Your task to perform on an android device: Add "razer blade" to the cart on ebay Image 0: 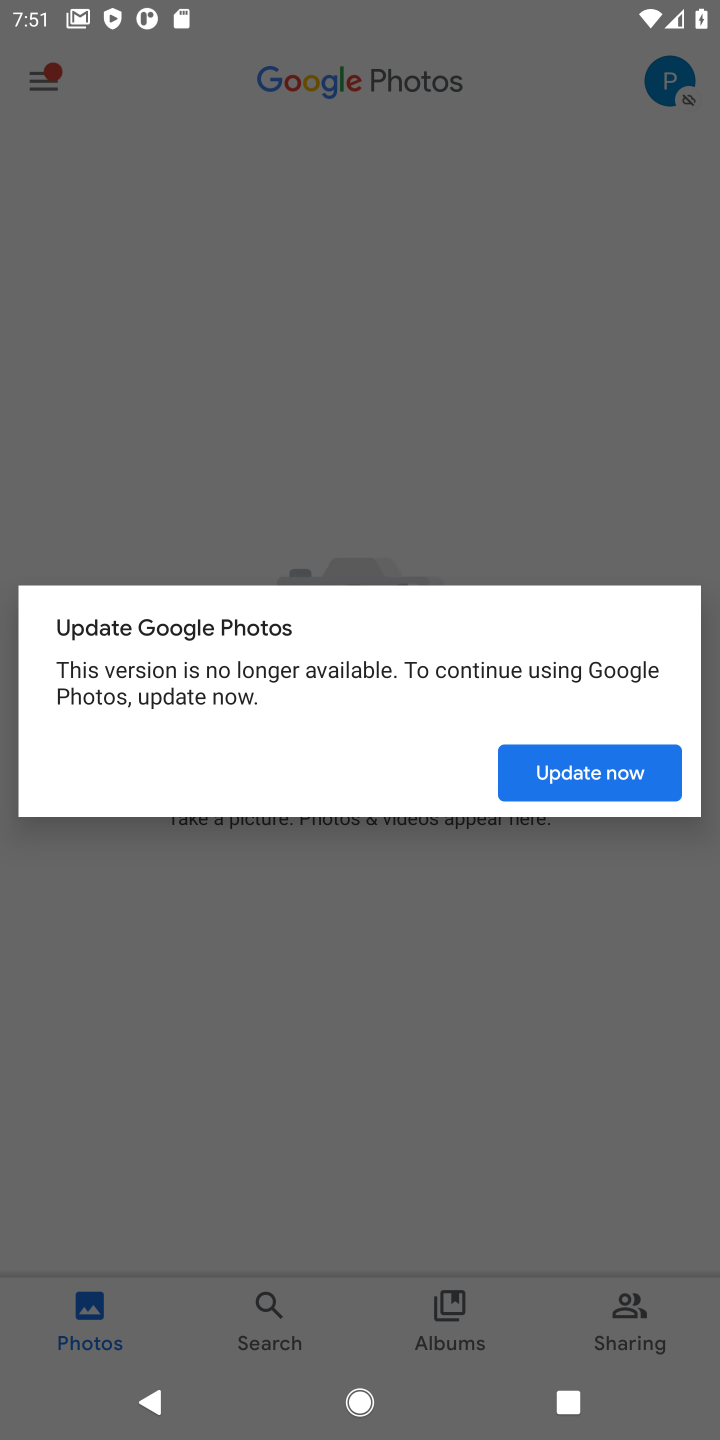
Step 0: press home button
Your task to perform on an android device: Add "razer blade" to the cart on ebay Image 1: 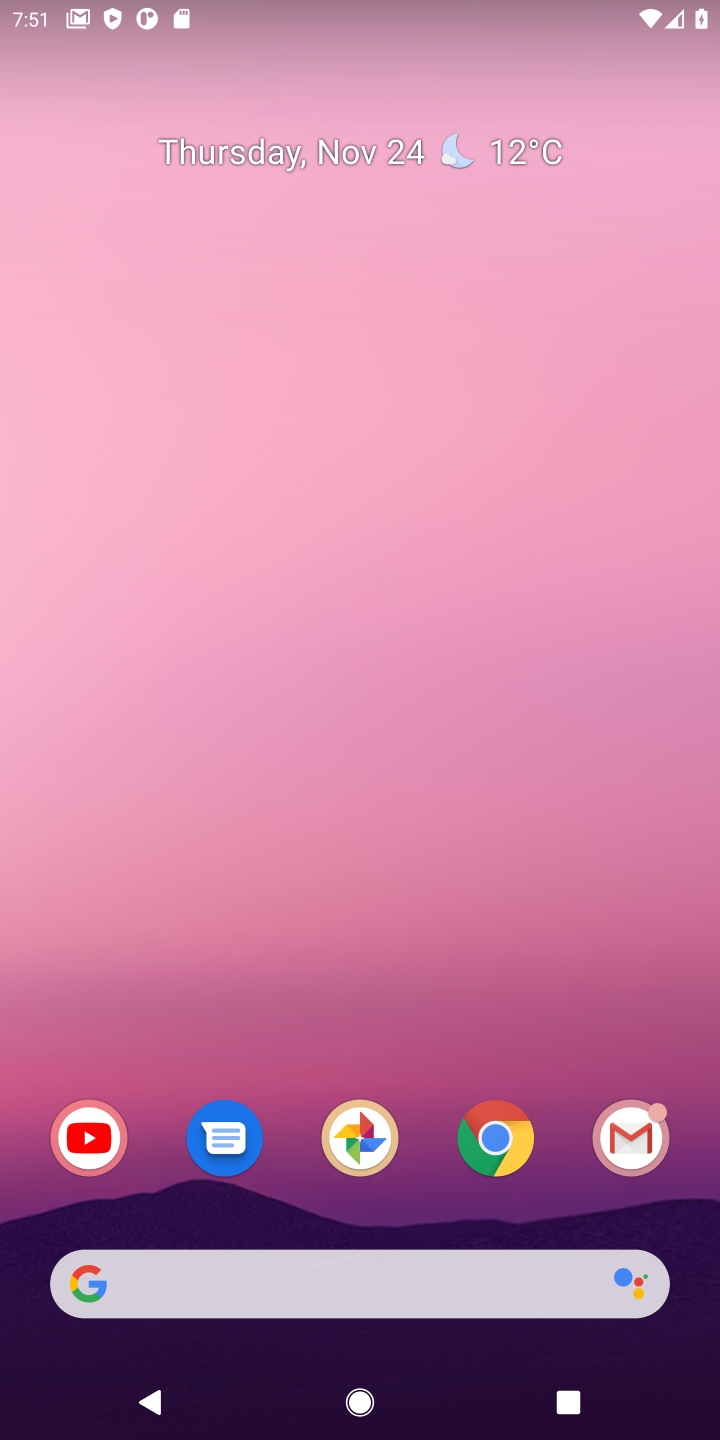
Step 1: click (481, 1119)
Your task to perform on an android device: Add "razer blade" to the cart on ebay Image 2: 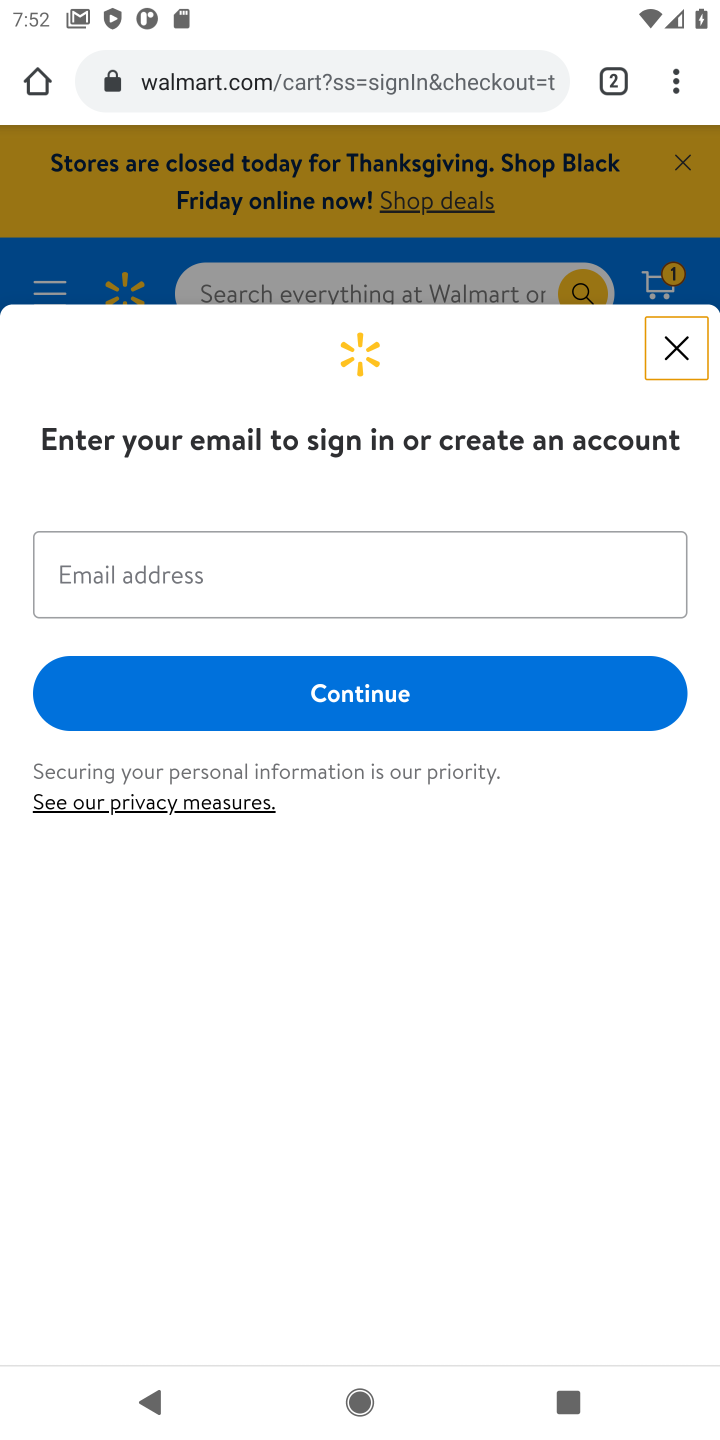
Step 2: click (609, 80)
Your task to perform on an android device: Add "razer blade" to the cart on ebay Image 3: 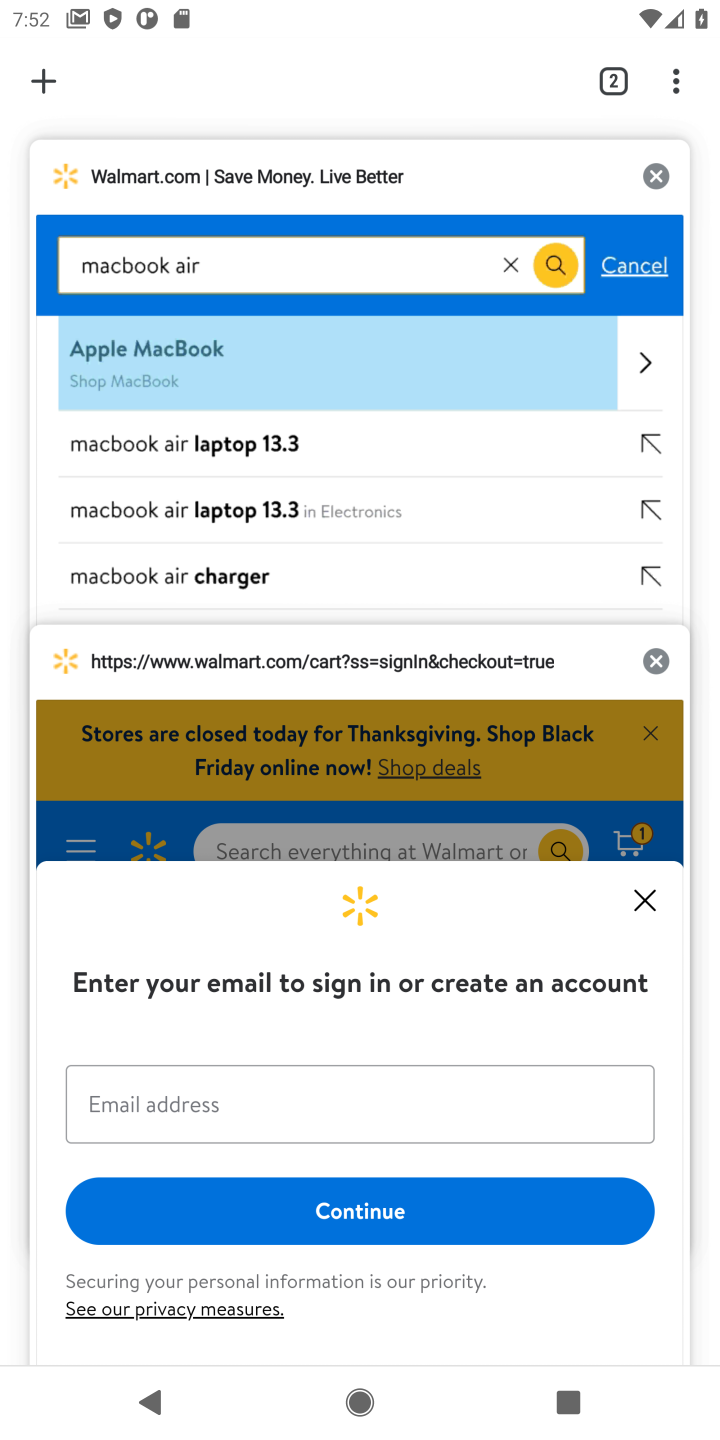
Step 3: click (32, 80)
Your task to perform on an android device: Add "razer blade" to the cart on ebay Image 4: 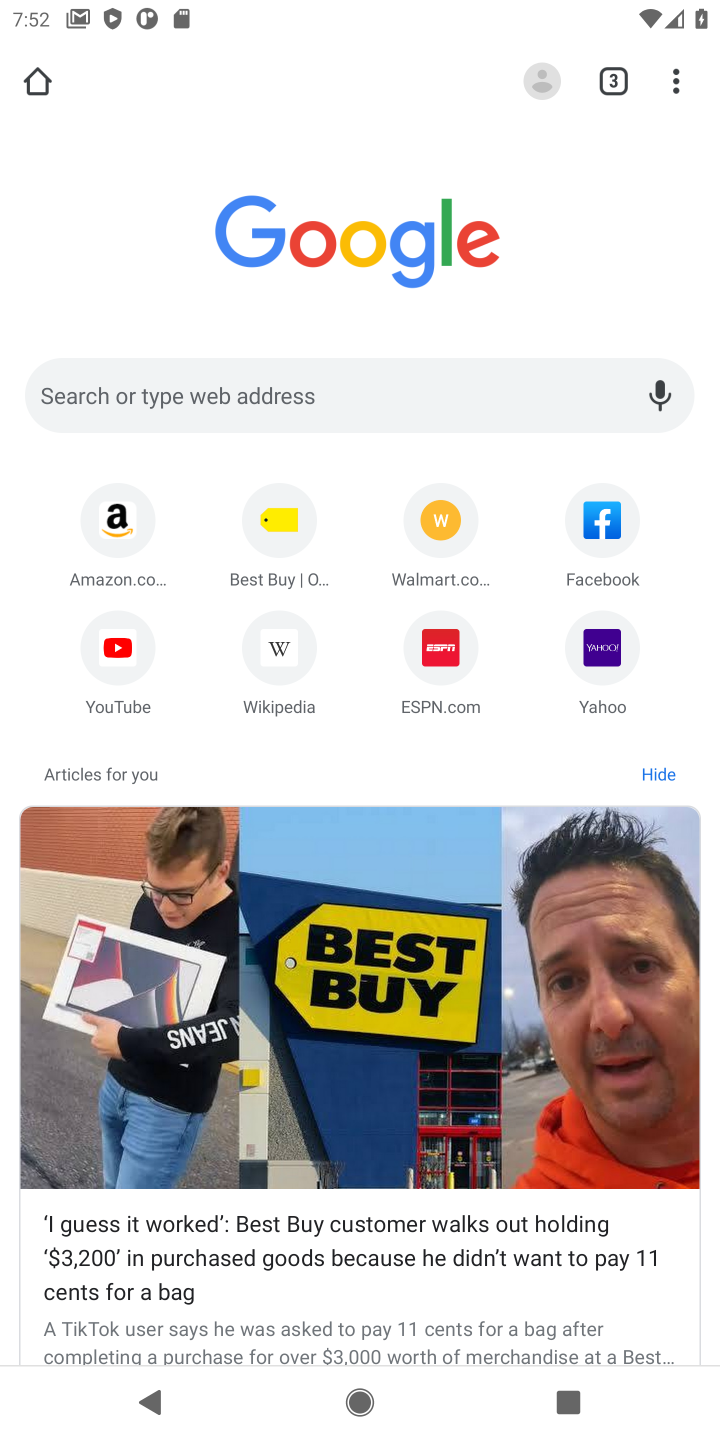
Step 4: click (199, 376)
Your task to perform on an android device: Add "razer blade" to the cart on ebay Image 5: 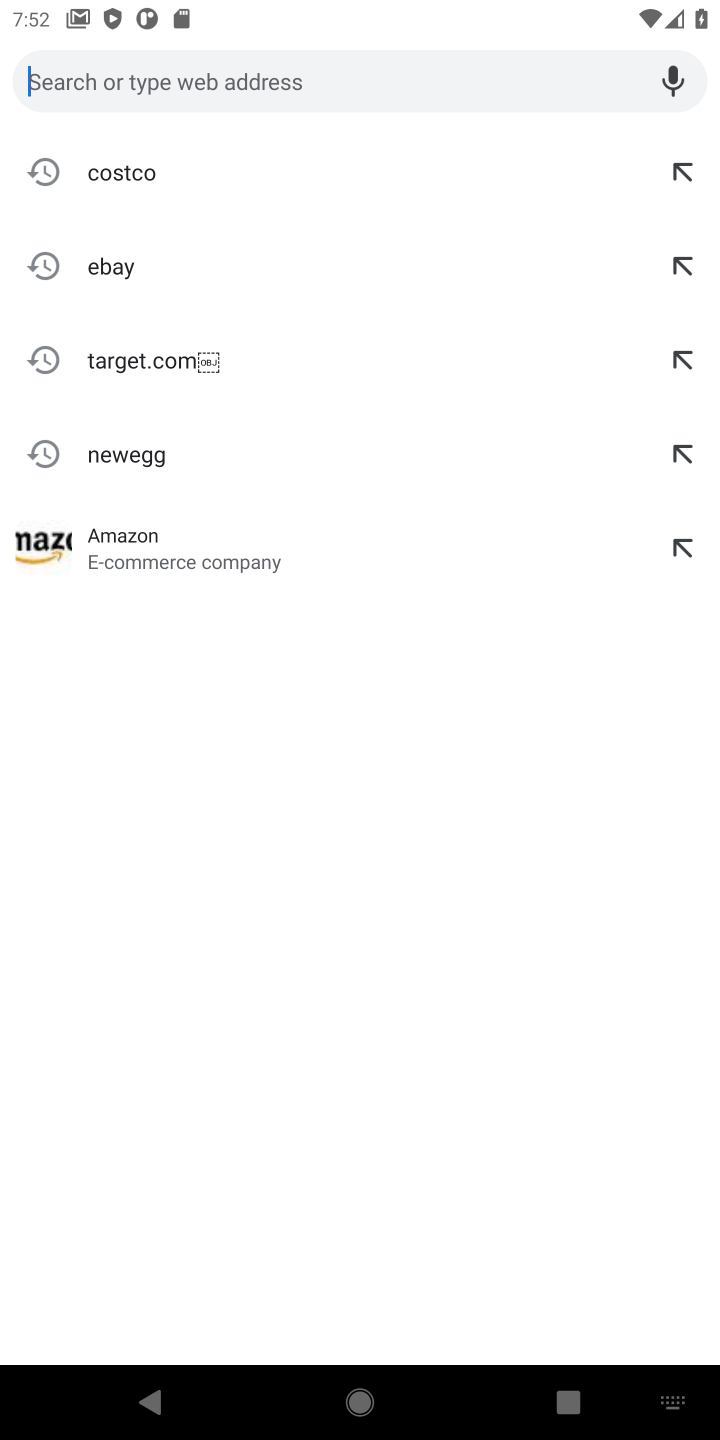
Step 5: click (103, 255)
Your task to perform on an android device: Add "razer blade" to the cart on ebay Image 6: 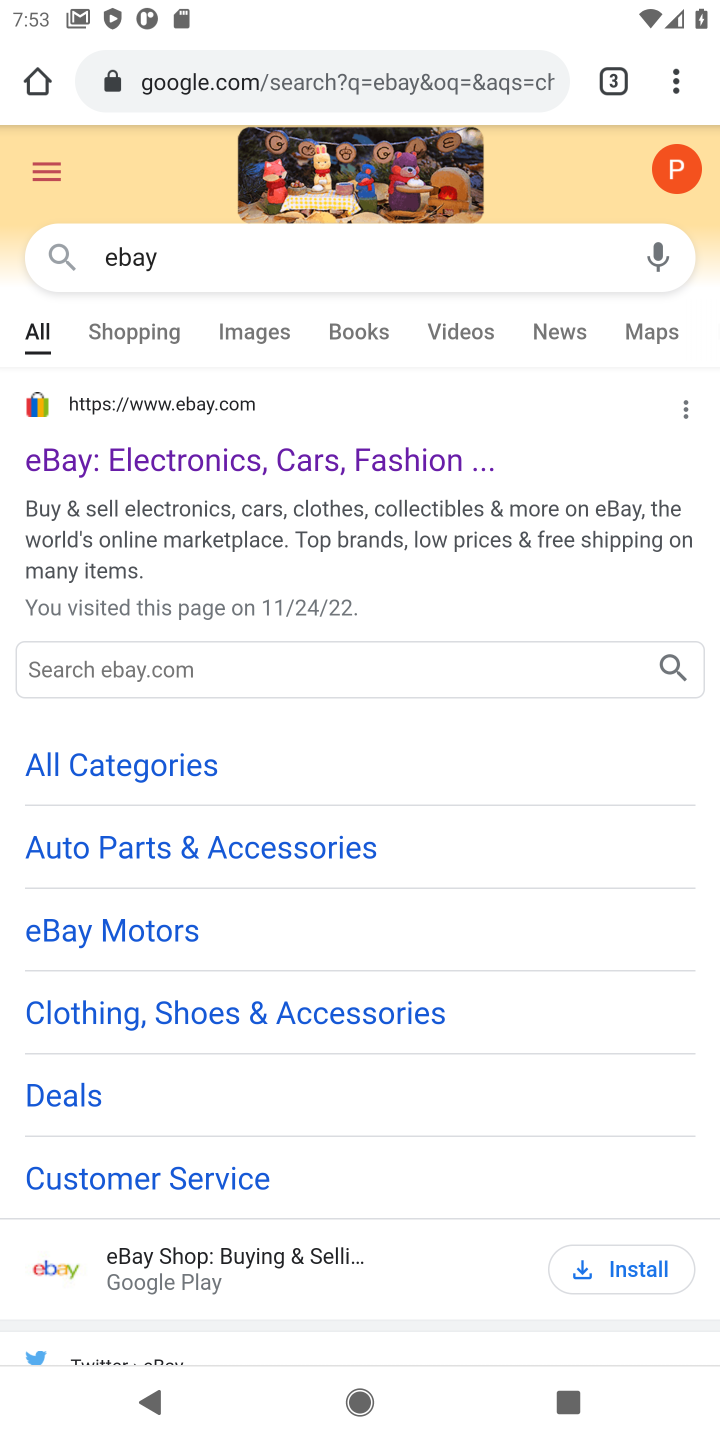
Step 6: click (377, 467)
Your task to perform on an android device: Add "razer blade" to the cart on ebay Image 7: 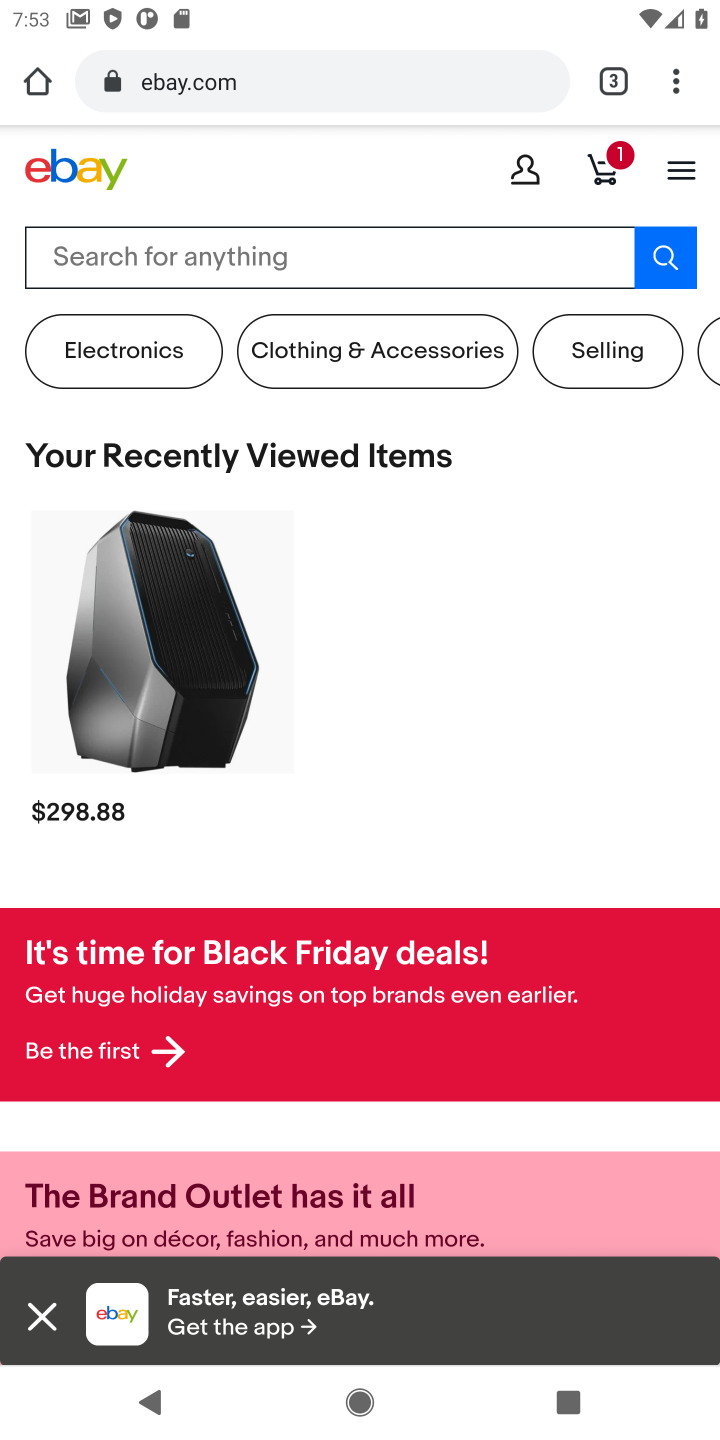
Step 7: click (255, 255)
Your task to perform on an android device: Add "razer blade" to the cart on ebay Image 8: 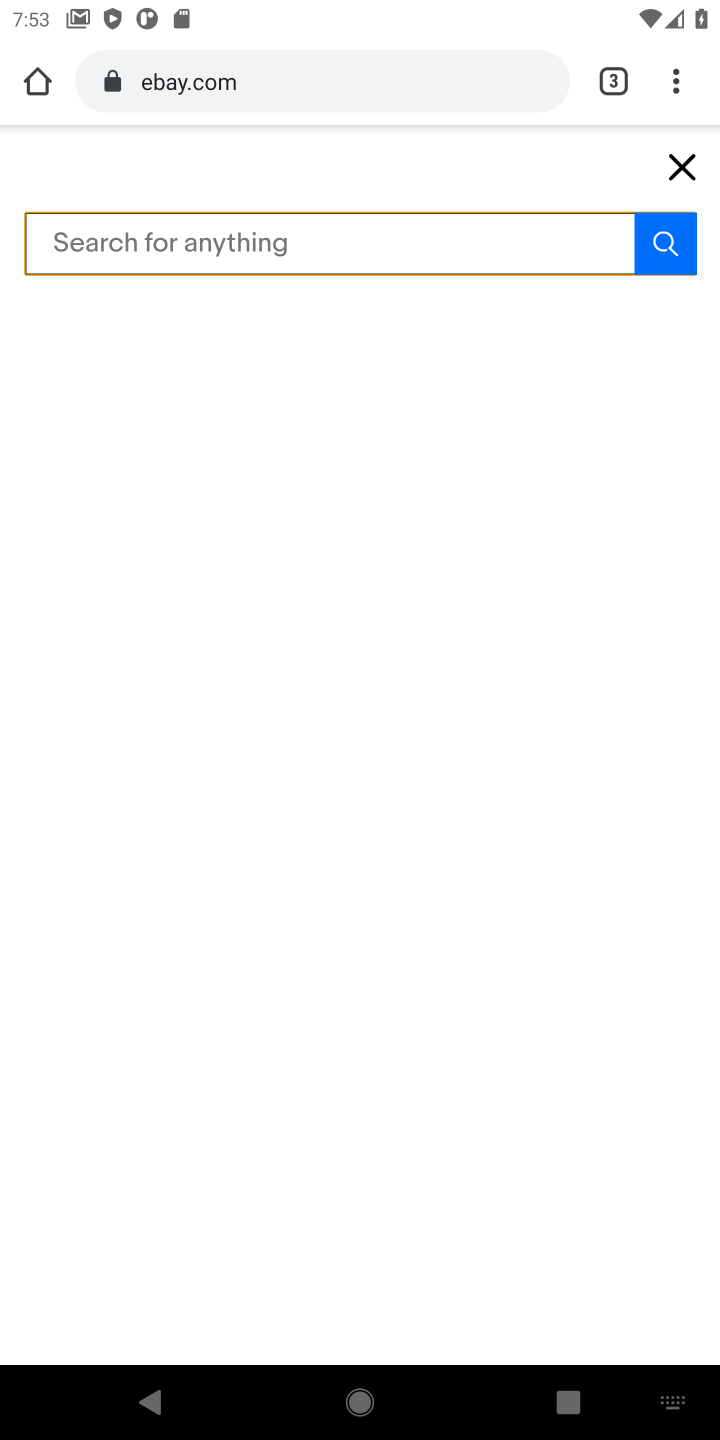
Step 8: click (113, 261)
Your task to perform on an android device: Add "razer blade" to the cart on ebay Image 9: 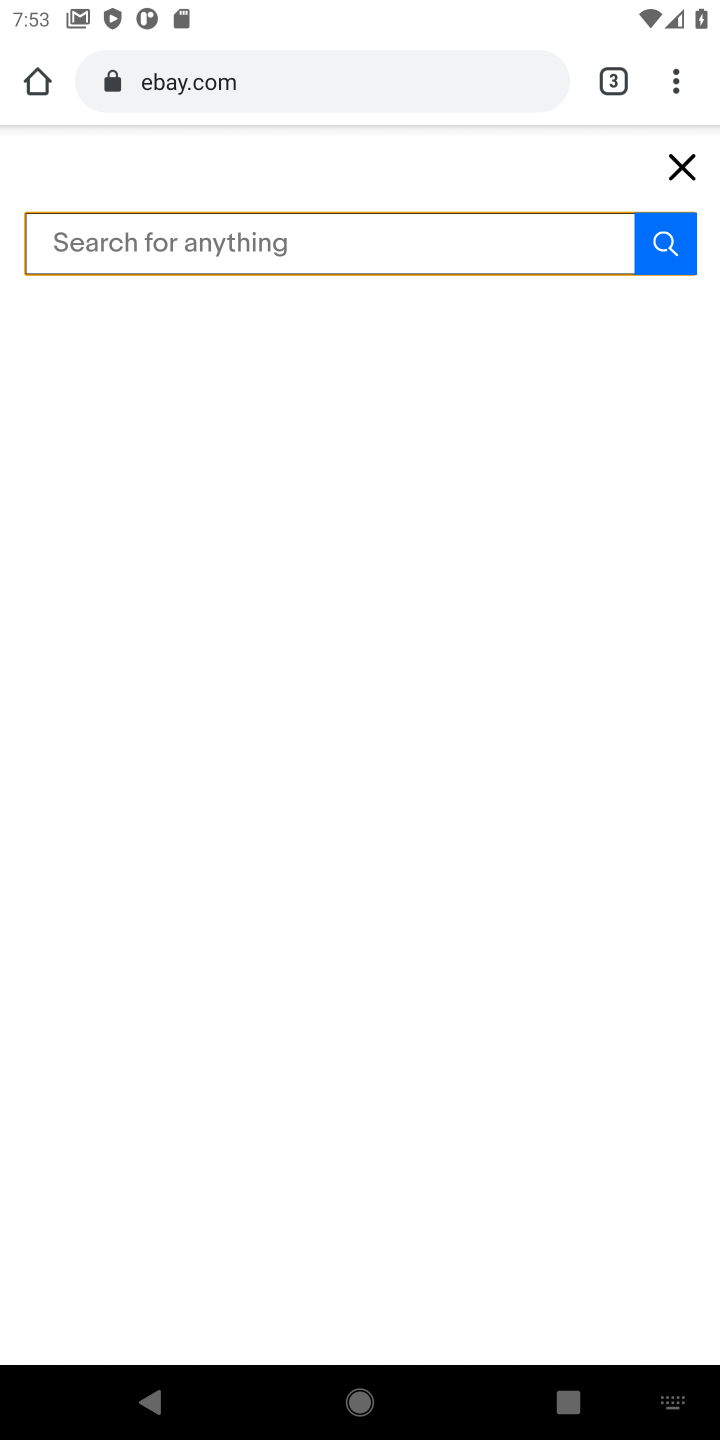
Step 9: type "razer blade"
Your task to perform on an android device: Add "razer blade" to the cart on ebay Image 10: 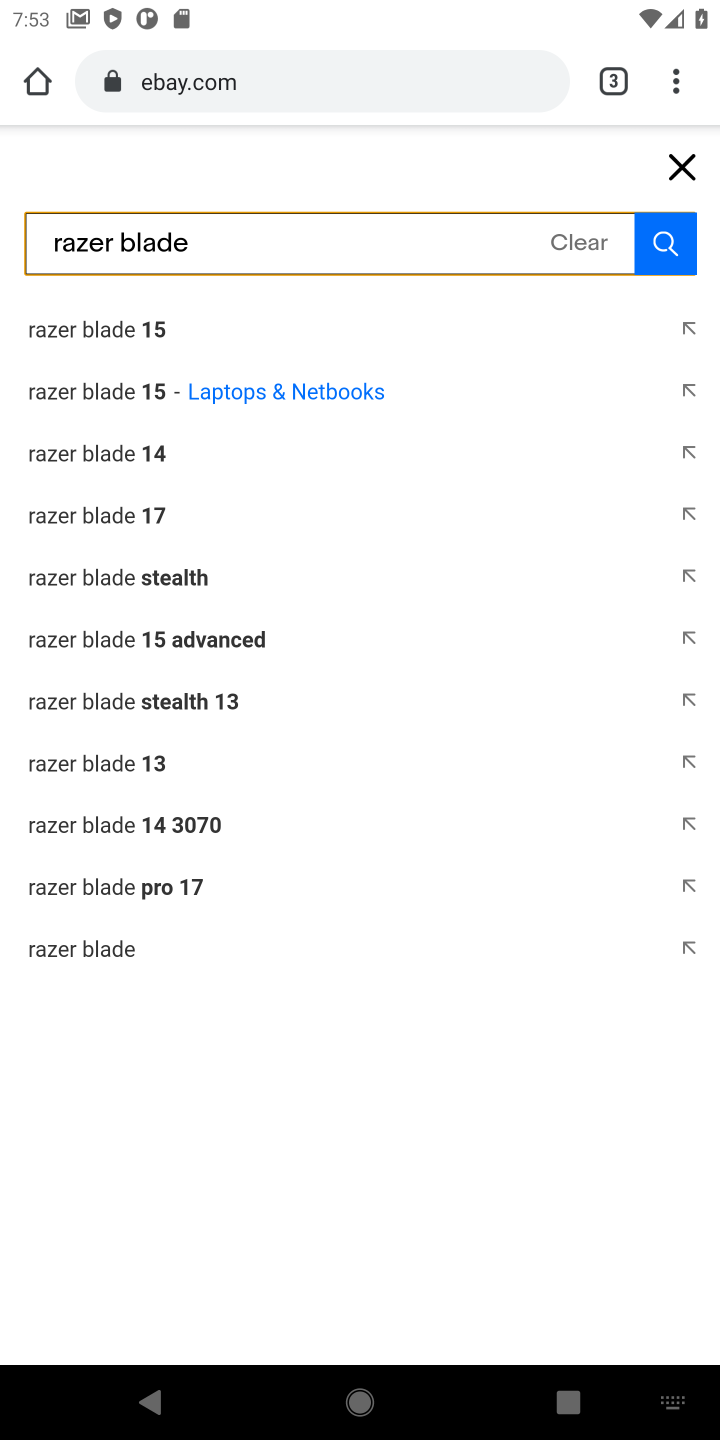
Step 10: click (159, 335)
Your task to perform on an android device: Add "razer blade" to the cart on ebay Image 11: 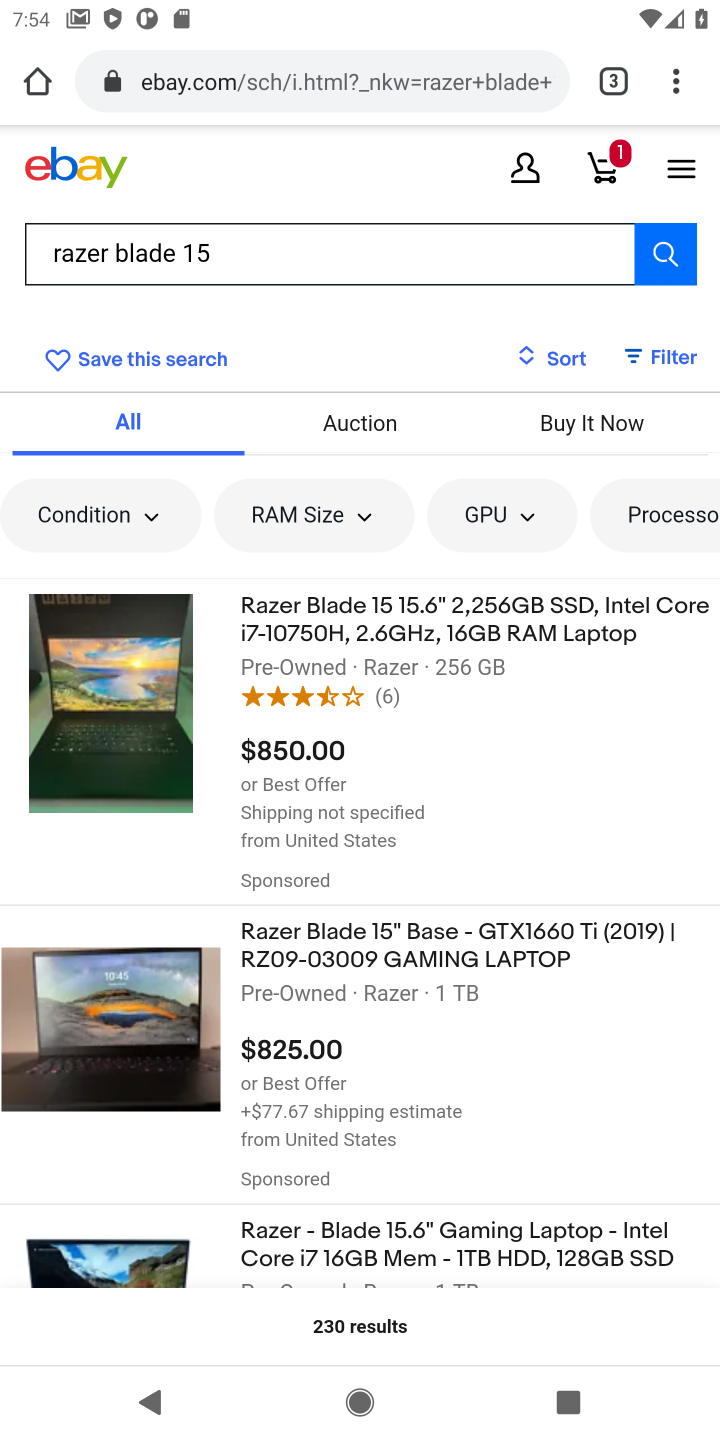
Step 11: click (436, 617)
Your task to perform on an android device: Add "razer blade" to the cart on ebay Image 12: 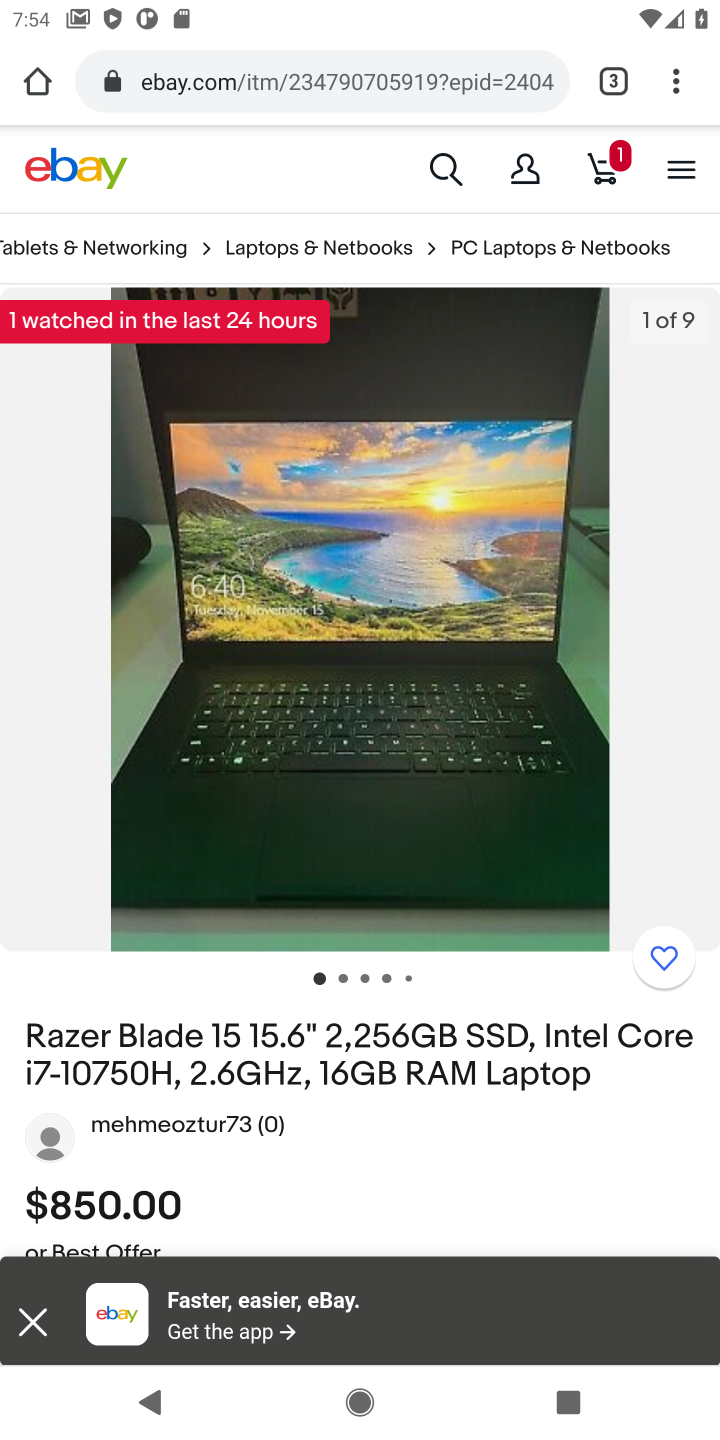
Step 12: drag from (306, 928) to (354, 263)
Your task to perform on an android device: Add "razer blade" to the cart on ebay Image 13: 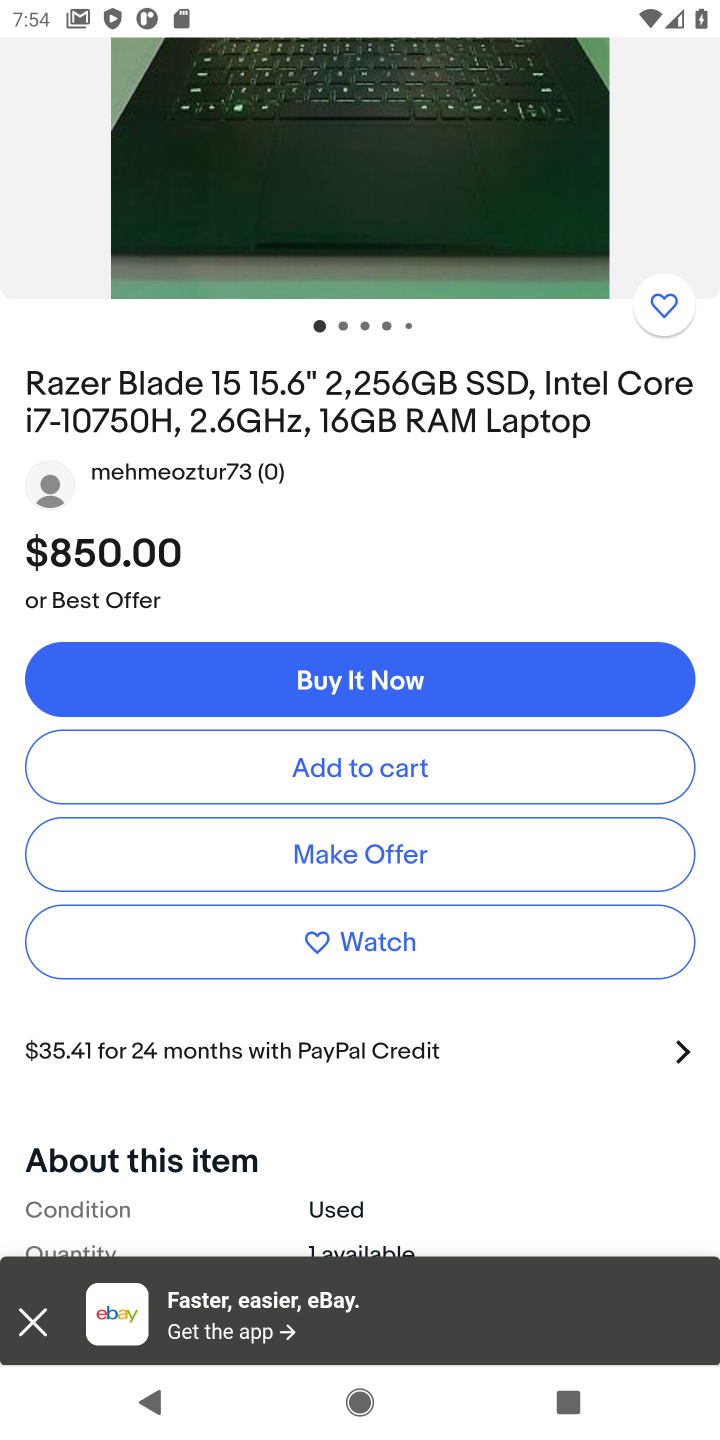
Step 13: click (337, 771)
Your task to perform on an android device: Add "razer blade" to the cart on ebay Image 14: 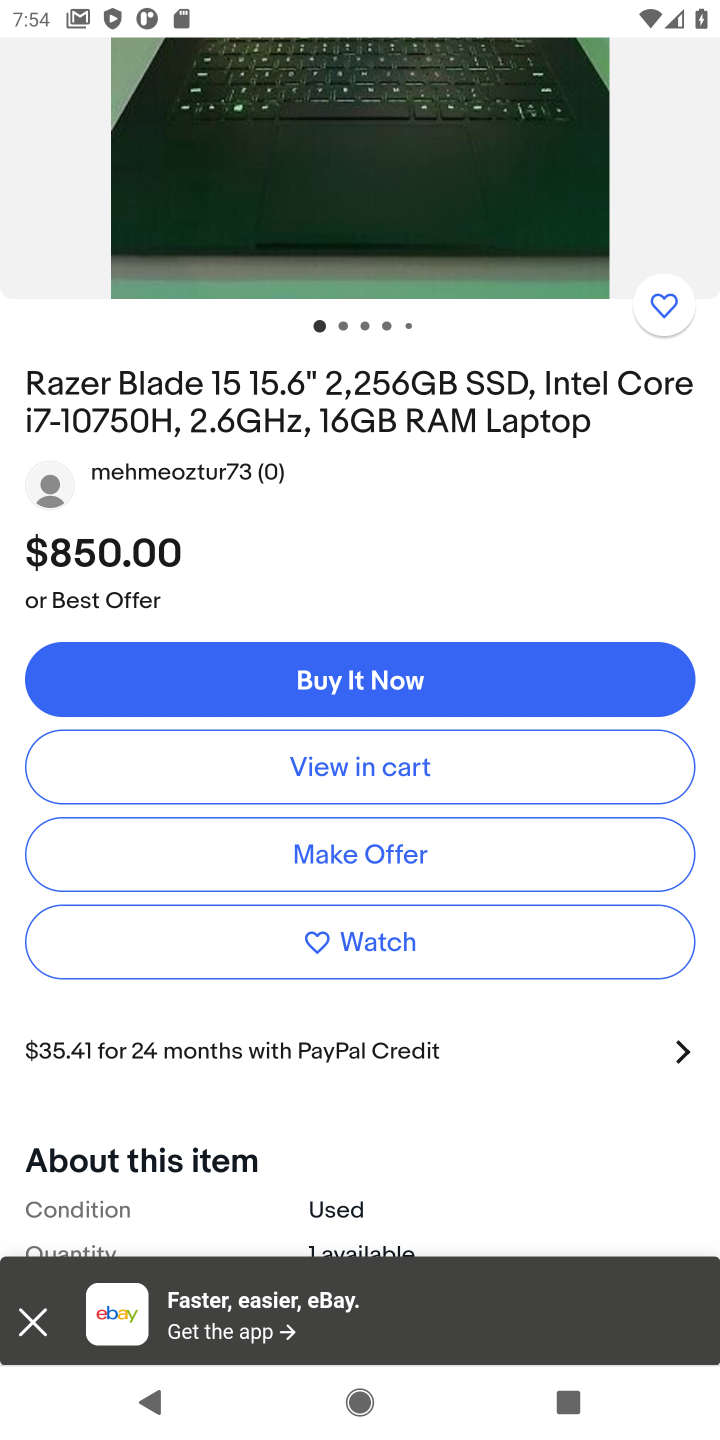
Step 14: task complete